Your task to perform on an android device: Go to network settings Image 0: 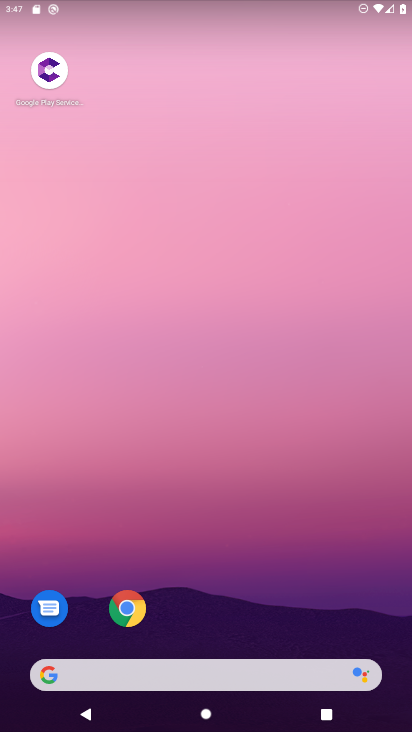
Step 0: drag from (305, 567) to (311, 38)
Your task to perform on an android device: Go to network settings Image 1: 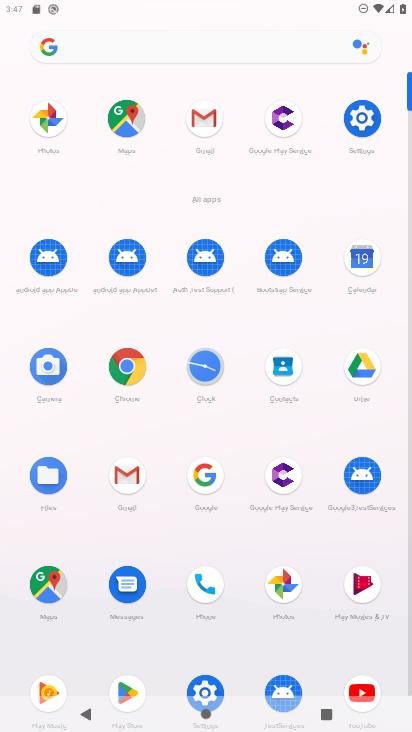
Step 1: click (375, 115)
Your task to perform on an android device: Go to network settings Image 2: 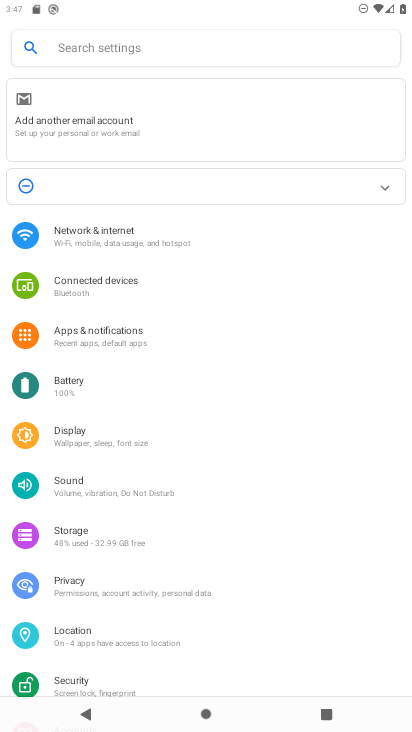
Step 2: click (126, 240)
Your task to perform on an android device: Go to network settings Image 3: 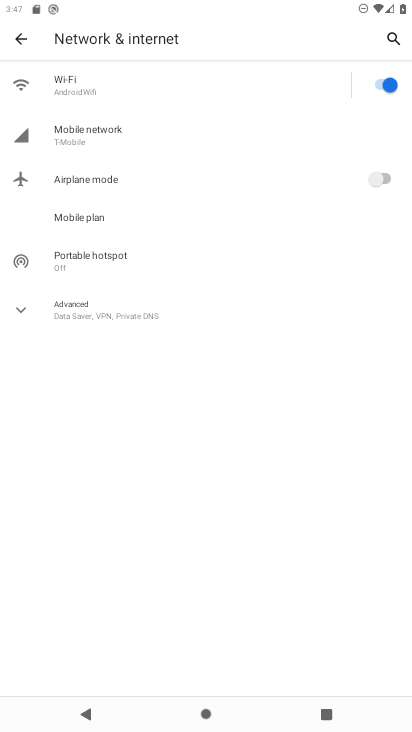
Step 3: click (116, 310)
Your task to perform on an android device: Go to network settings Image 4: 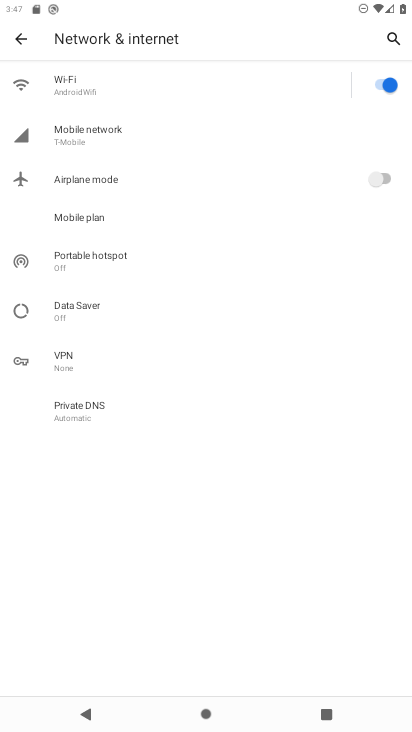
Step 4: task complete